Your task to perform on an android device: delete browsing data in the chrome app Image 0: 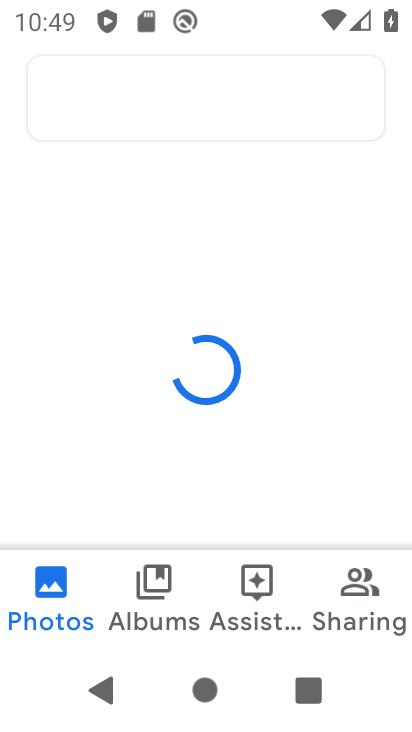
Step 0: press home button
Your task to perform on an android device: delete browsing data in the chrome app Image 1: 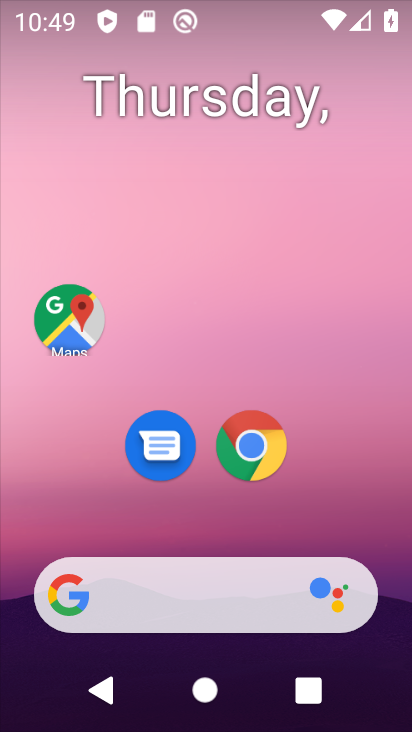
Step 1: drag from (214, 515) to (282, 30)
Your task to perform on an android device: delete browsing data in the chrome app Image 2: 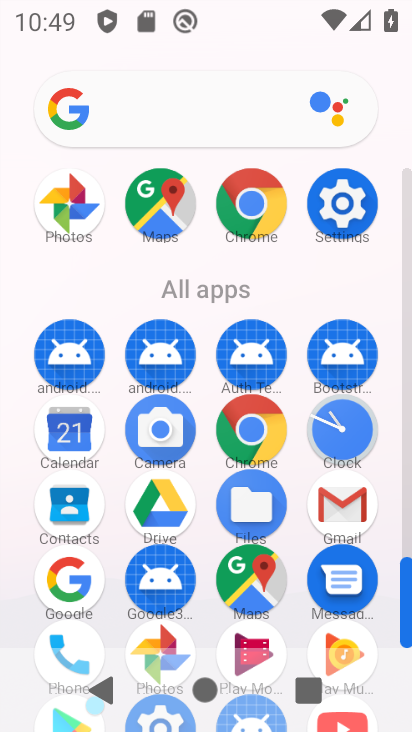
Step 2: click (251, 209)
Your task to perform on an android device: delete browsing data in the chrome app Image 3: 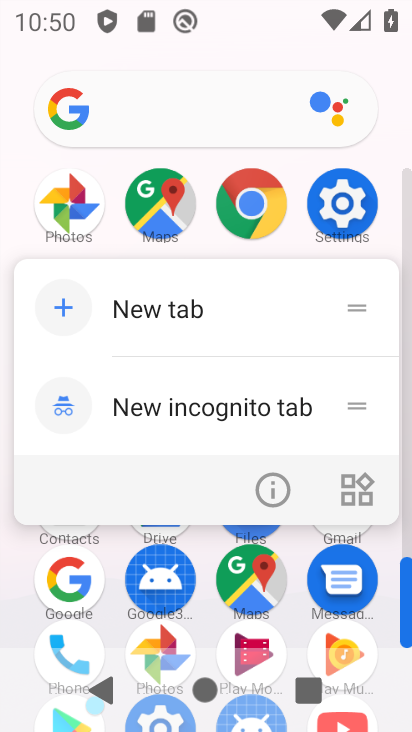
Step 3: click (254, 204)
Your task to perform on an android device: delete browsing data in the chrome app Image 4: 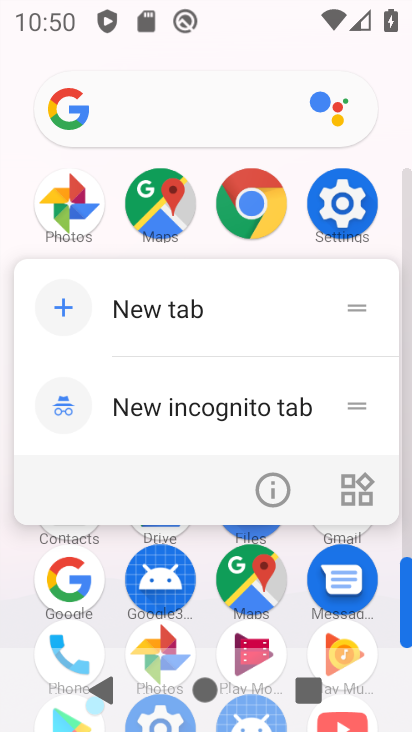
Step 4: click (254, 204)
Your task to perform on an android device: delete browsing data in the chrome app Image 5: 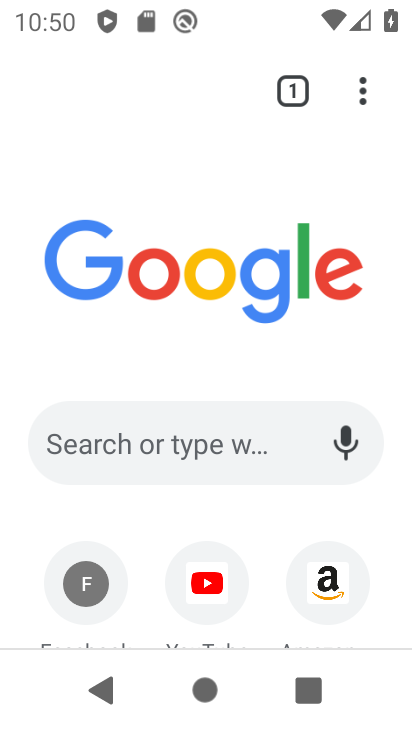
Step 5: click (357, 105)
Your task to perform on an android device: delete browsing data in the chrome app Image 6: 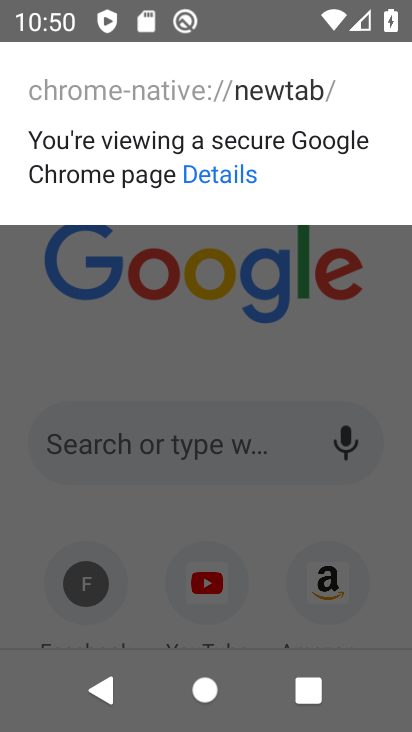
Step 6: press back button
Your task to perform on an android device: delete browsing data in the chrome app Image 7: 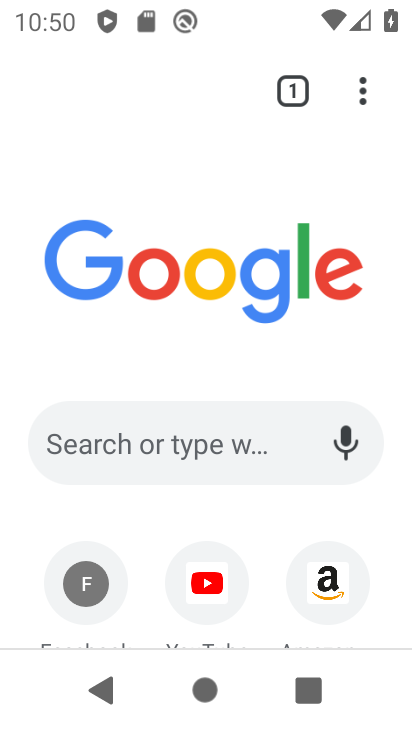
Step 7: click (354, 103)
Your task to perform on an android device: delete browsing data in the chrome app Image 8: 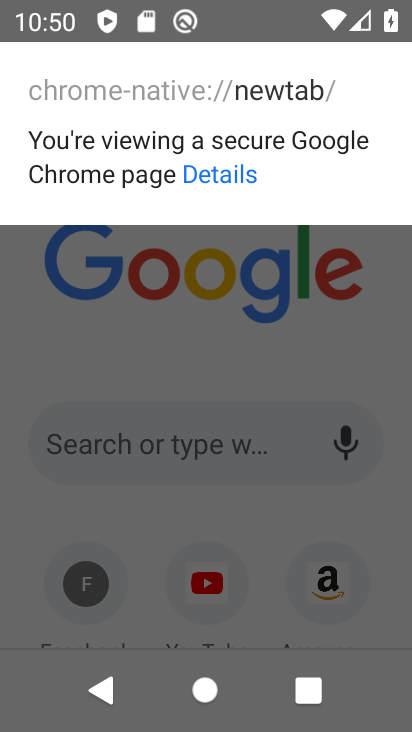
Step 8: press back button
Your task to perform on an android device: delete browsing data in the chrome app Image 9: 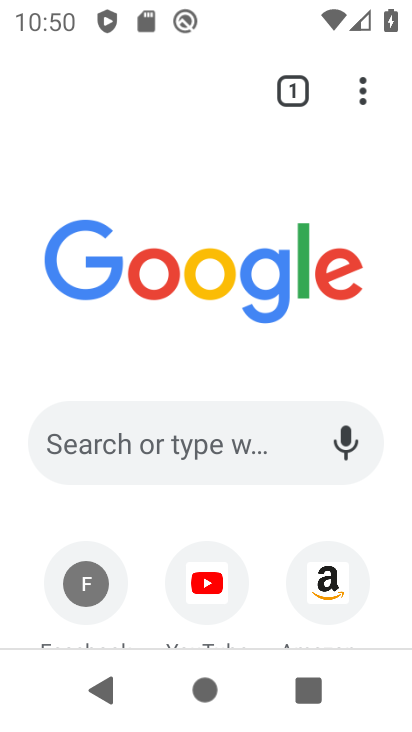
Step 9: click (355, 104)
Your task to perform on an android device: delete browsing data in the chrome app Image 10: 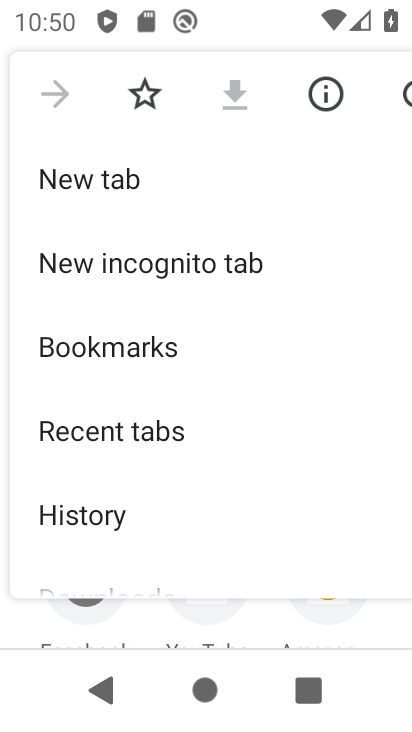
Step 10: drag from (155, 515) to (342, 136)
Your task to perform on an android device: delete browsing data in the chrome app Image 11: 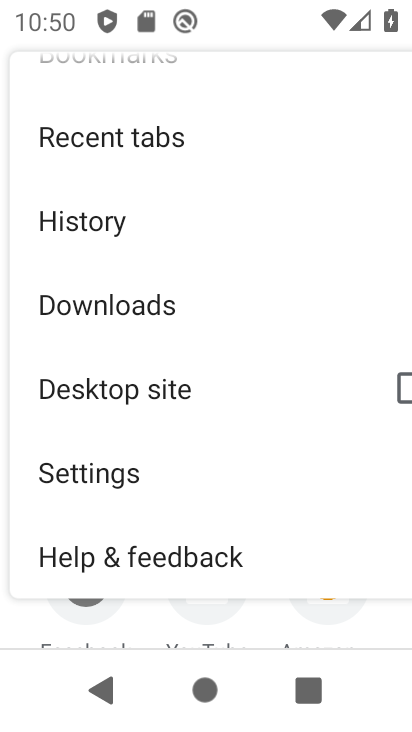
Step 11: click (86, 481)
Your task to perform on an android device: delete browsing data in the chrome app Image 12: 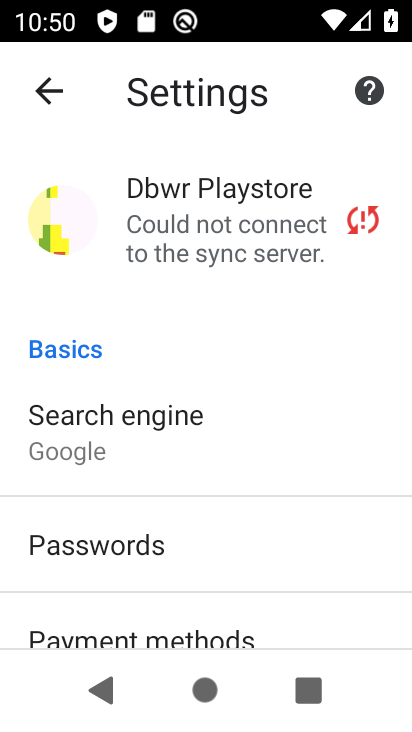
Step 12: drag from (127, 585) to (278, 126)
Your task to perform on an android device: delete browsing data in the chrome app Image 13: 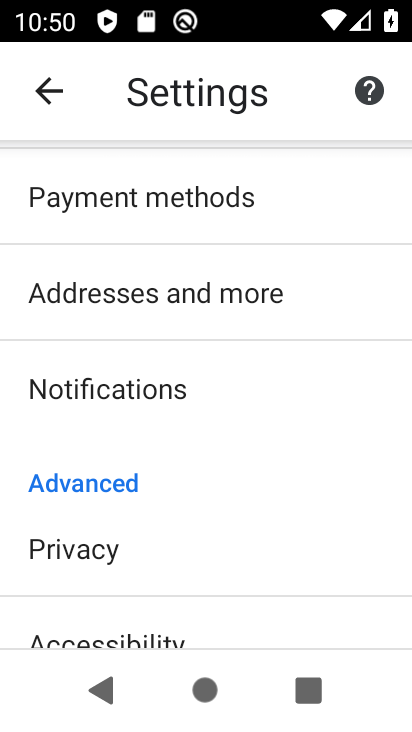
Step 13: click (86, 548)
Your task to perform on an android device: delete browsing data in the chrome app Image 14: 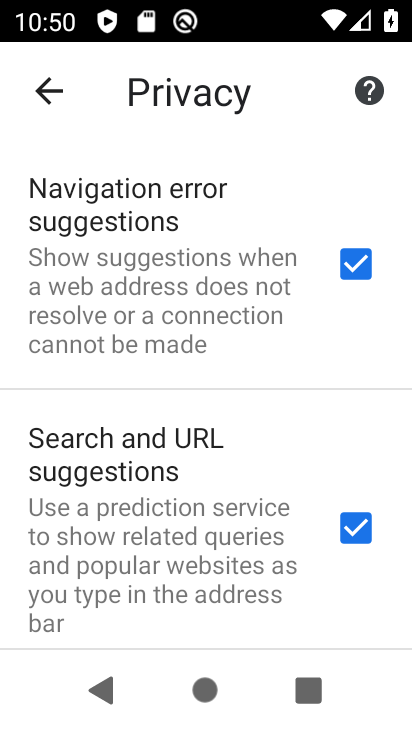
Step 14: drag from (160, 484) to (262, 279)
Your task to perform on an android device: delete browsing data in the chrome app Image 15: 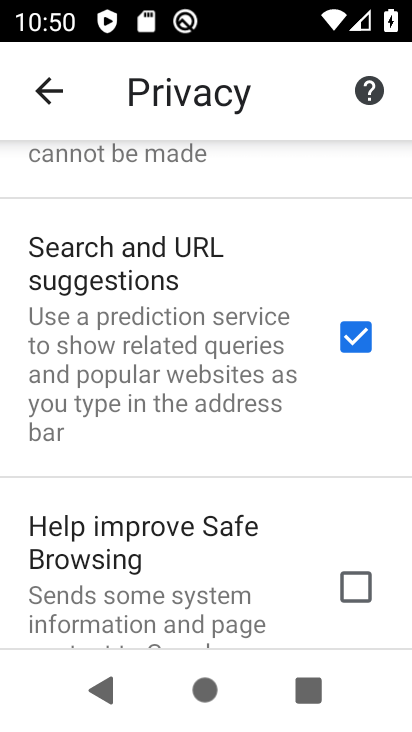
Step 15: drag from (138, 588) to (349, 94)
Your task to perform on an android device: delete browsing data in the chrome app Image 16: 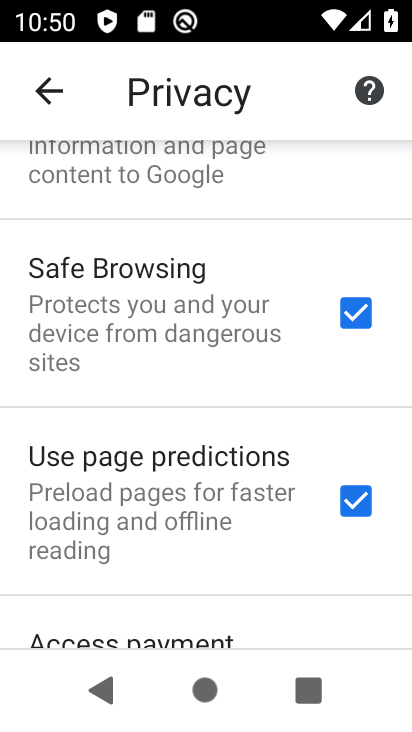
Step 16: drag from (145, 572) to (356, 71)
Your task to perform on an android device: delete browsing data in the chrome app Image 17: 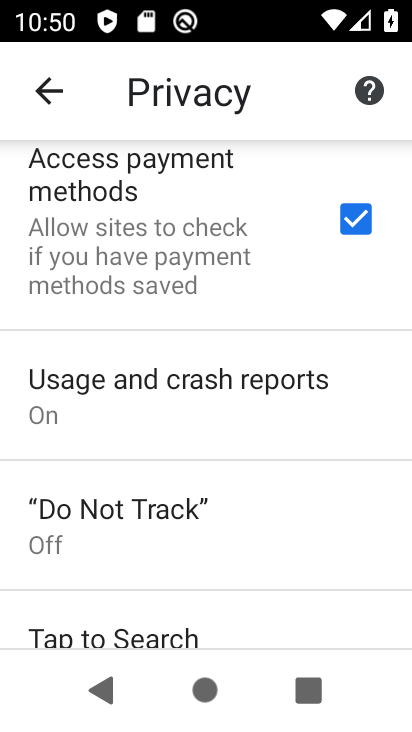
Step 17: drag from (180, 573) to (315, 113)
Your task to perform on an android device: delete browsing data in the chrome app Image 18: 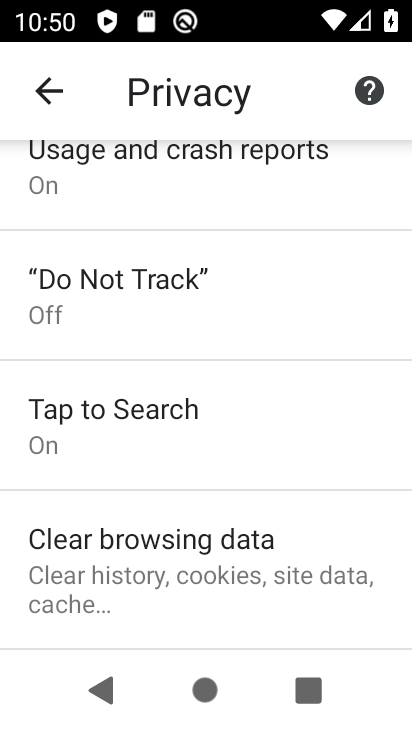
Step 18: click (112, 559)
Your task to perform on an android device: delete browsing data in the chrome app Image 19: 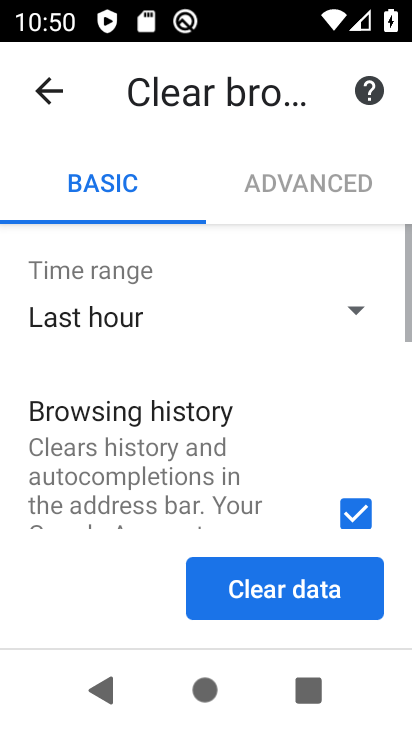
Step 19: drag from (190, 460) to (323, 49)
Your task to perform on an android device: delete browsing data in the chrome app Image 20: 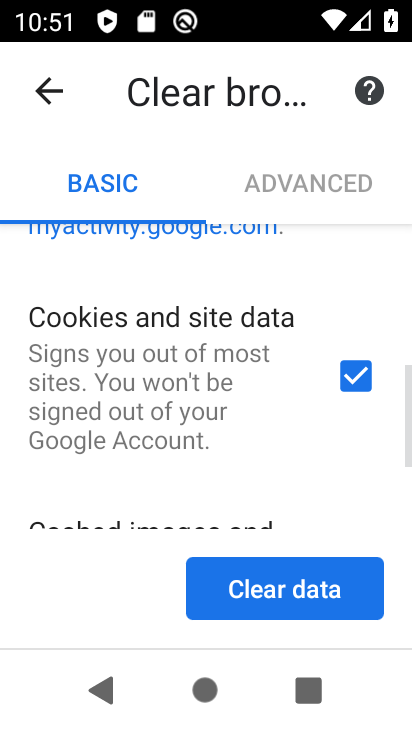
Step 20: drag from (213, 469) to (303, 143)
Your task to perform on an android device: delete browsing data in the chrome app Image 21: 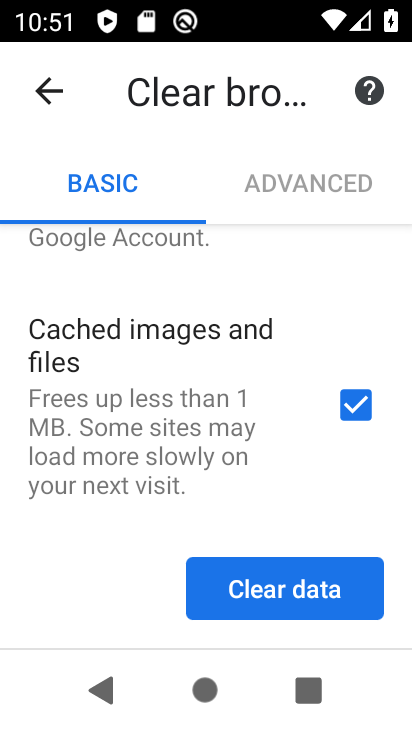
Step 21: click (287, 591)
Your task to perform on an android device: delete browsing data in the chrome app Image 22: 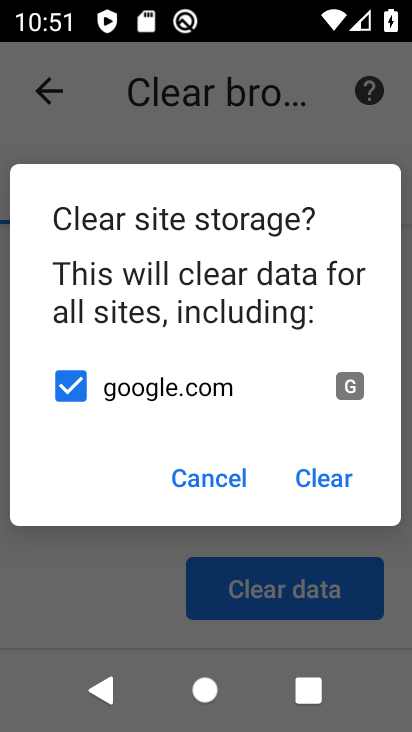
Step 22: click (334, 476)
Your task to perform on an android device: delete browsing data in the chrome app Image 23: 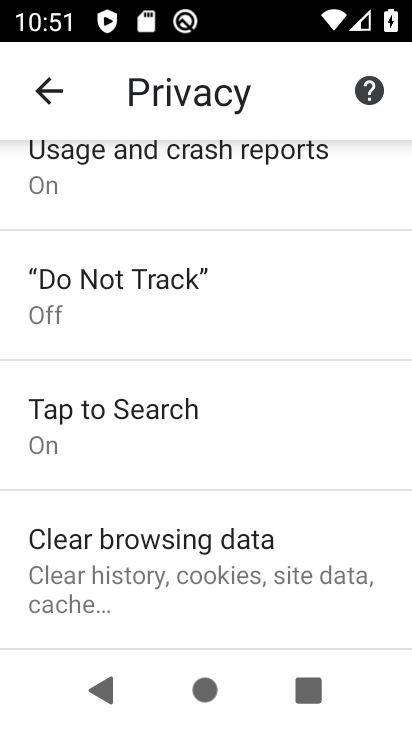
Step 23: task complete